Your task to perform on an android device: Go to internet settings Image 0: 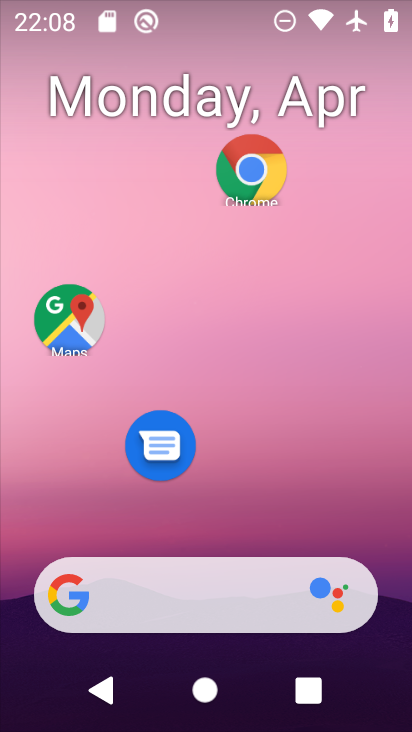
Step 0: click (228, 85)
Your task to perform on an android device: Go to internet settings Image 1: 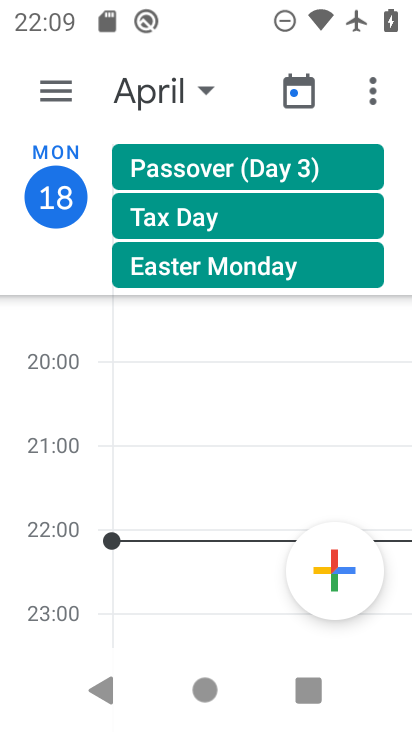
Step 1: press home button
Your task to perform on an android device: Go to internet settings Image 2: 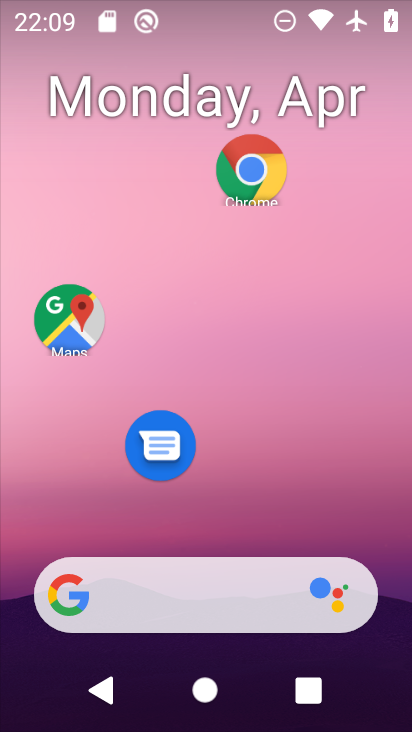
Step 2: drag from (208, 491) to (219, 70)
Your task to perform on an android device: Go to internet settings Image 3: 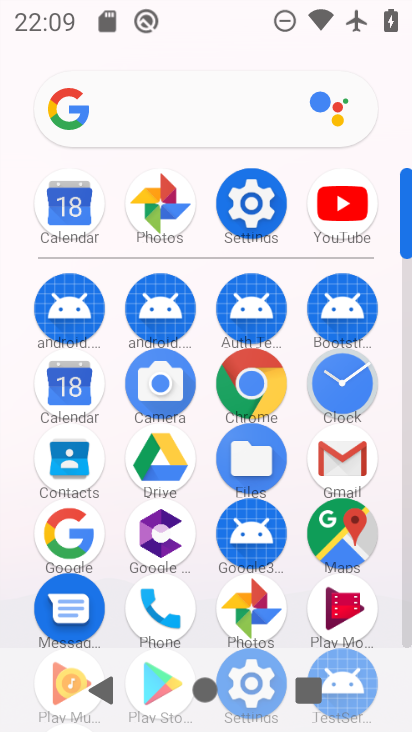
Step 3: click (256, 199)
Your task to perform on an android device: Go to internet settings Image 4: 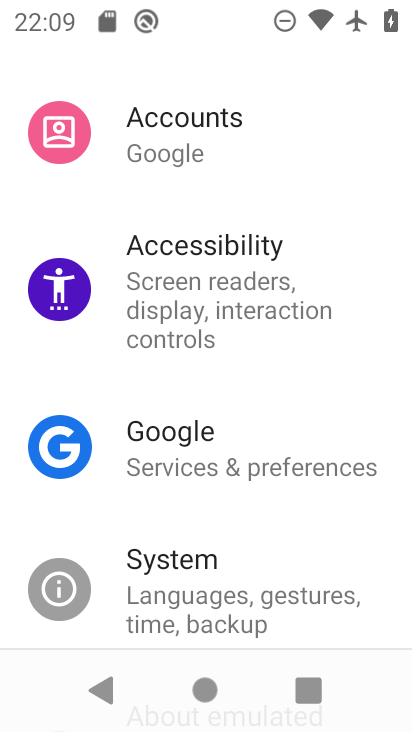
Step 4: drag from (274, 191) to (279, 589)
Your task to perform on an android device: Go to internet settings Image 5: 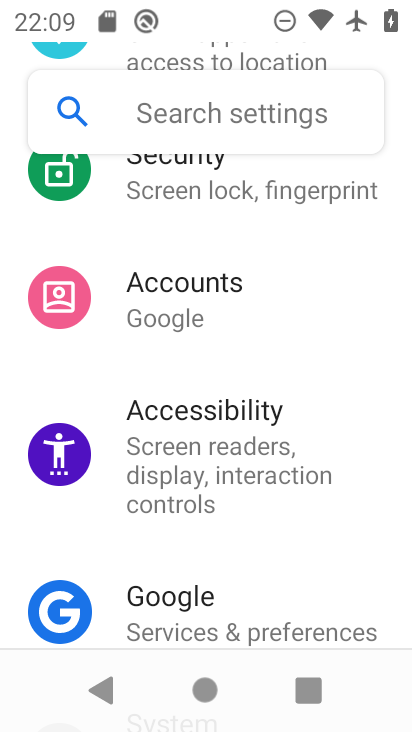
Step 5: drag from (221, 265) to (220, 563)
Your task to perform on an android device: Go to internet settings Image 6: 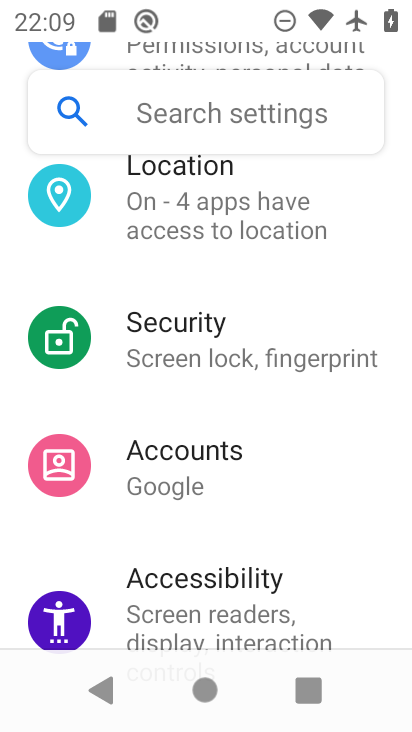
Step 6: drag from (216, 269) to (220, 550)
Your task to perform on an android device: Go to internet settings Image 7: 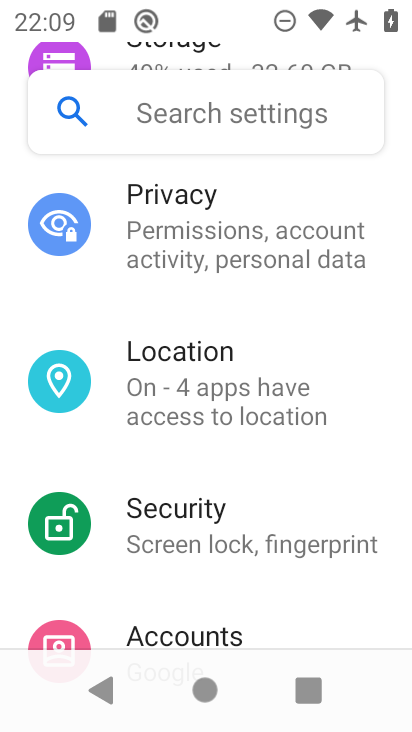
Step 7: drag from (226, 306) to (252, 572)
Your task to perform on an android device: Go to internet settings Image 8: 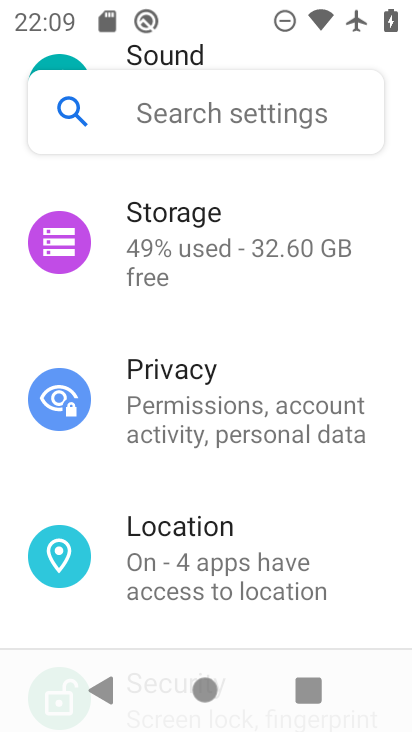
Step 8: drag from (195, 180) to (231, 615)
Your task to perform on an android device: Go to internet settings Image 9: 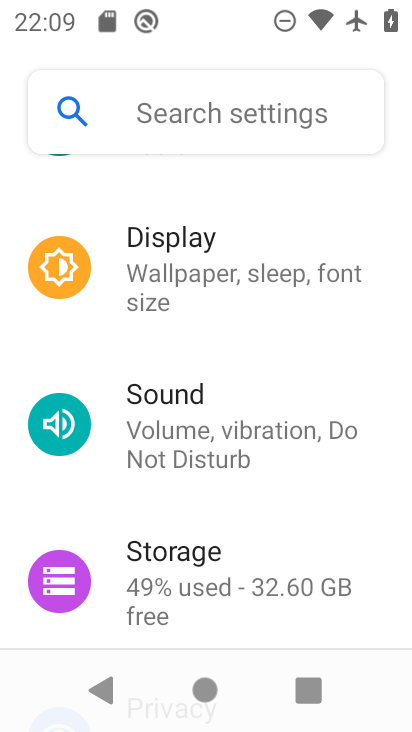
Step 9: drag from (213, 203) to (224, 595)
Your task to perform on an android device: Go to internet settings Image 10: 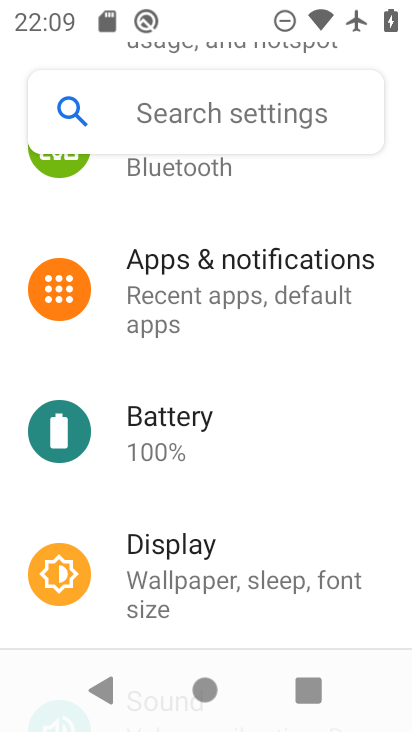
Step 10: drag from (239, 224) to (245, 580)
Your task to perform on an android device: Go to internet settings Image 11: 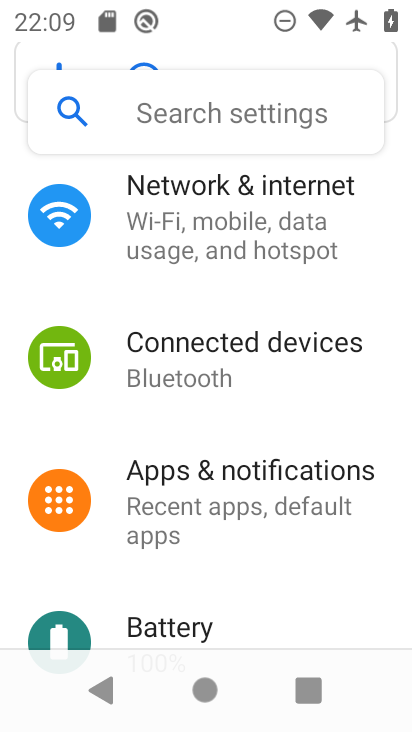
Step 11: click (219, 235)
Your task to perform on an android device: Go to internet settings Image 12: 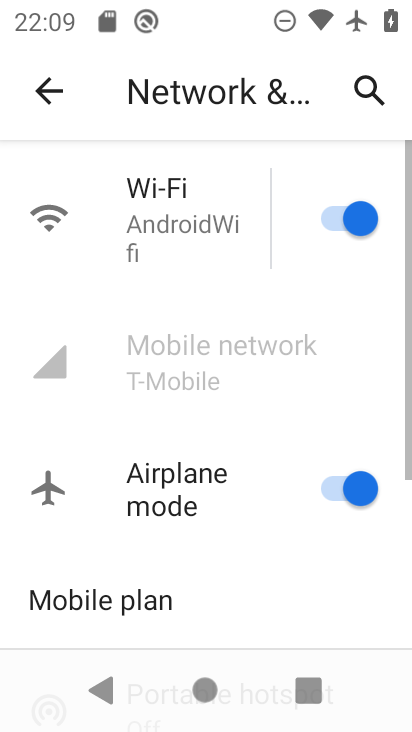
Step 12: task complete